Your task to perform on an android device: Open my contact list Image 0: 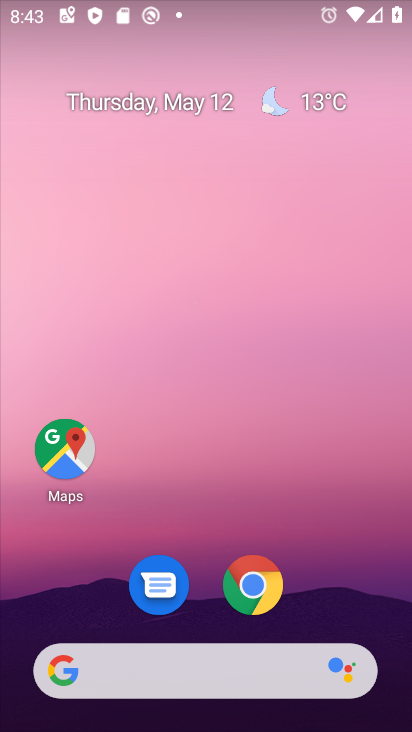
Step 0: drag from (226, 508) to (204, 55)
Your task to perform on an android device: Open my contact list Image 1: 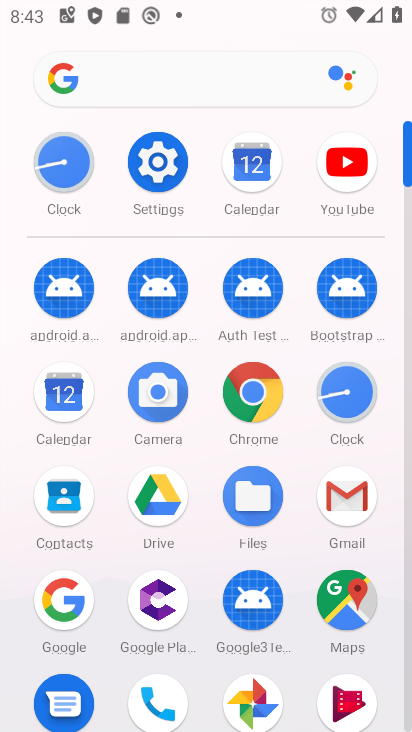
Step 1: click (76, 502)
Your task to perform on an android device: Open my contact list Image 2: 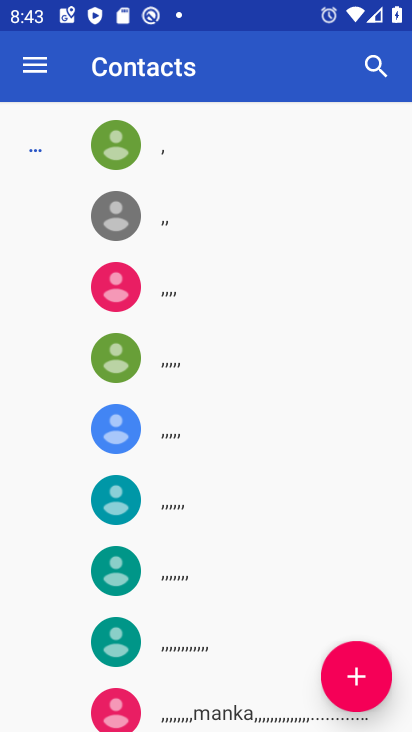
Step 2: task complete